Your task to perform on an android device: add a contact in the contacts app Image 0: 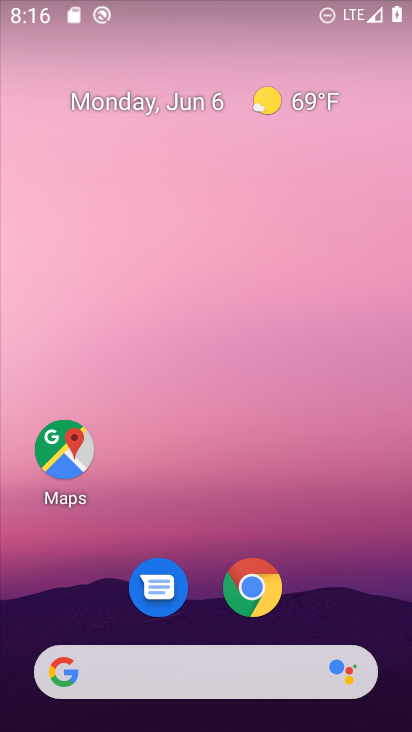
Step 0: drag from (310, 506) to (301, 141)
Your task to perform on an android device: add a contact in the contacts app Image 1: 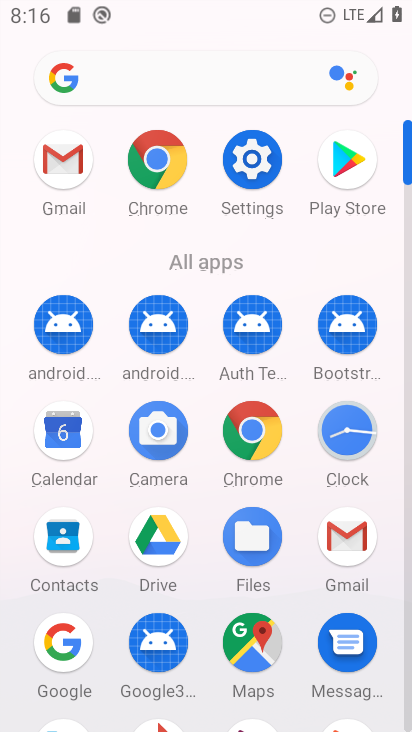
Step 1: drag from (297, 590) to (321, 405)
Your task to perform on an android device: add a contact in the contacts app Image 2: 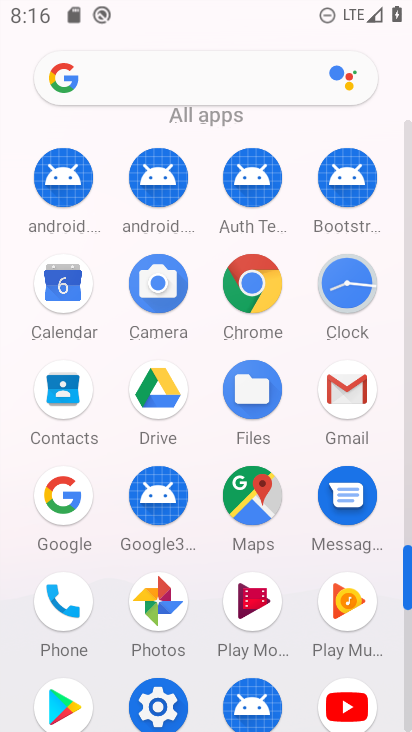
Step 2: click (59, 401)
Your task to perform on an android device: add a contact in the contacts app Image 3: 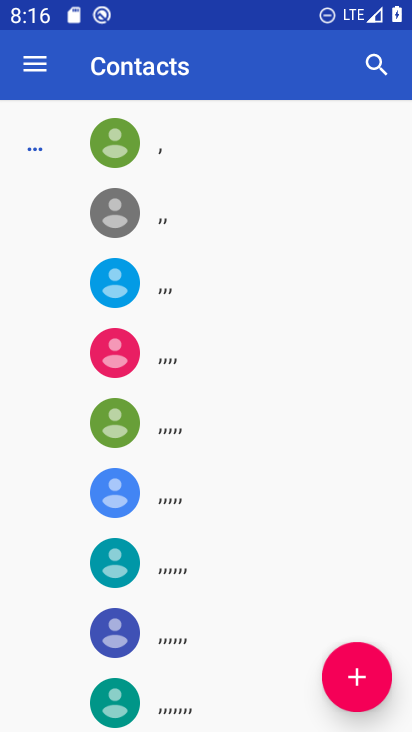
Step 3: click (345, 675)
Your task to perform on an android device: add a contact in the contacts app Image 4: 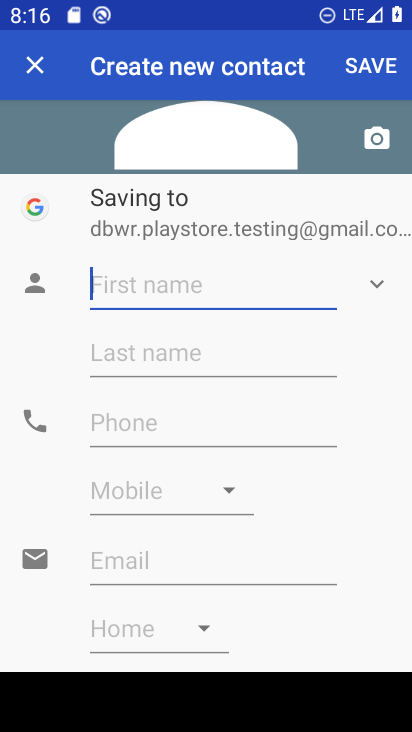
Step 4: click (281, 303)
Your task to perform on an android device: add a contact in the contacts app Image 5: 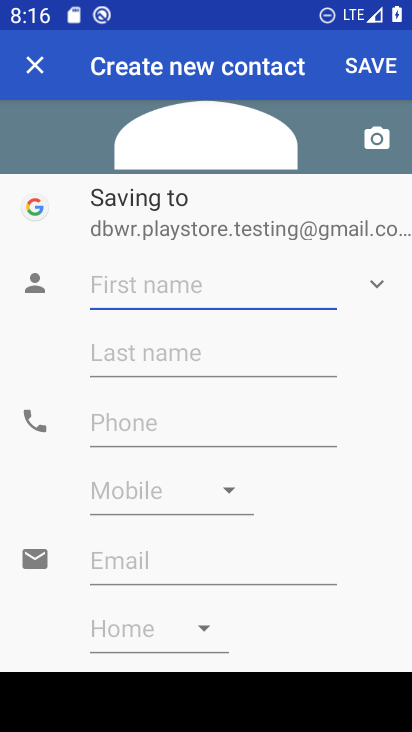
Step 5: type "ravan"
Your task to perform on an android device: add a contact in the contacts app Image 6: 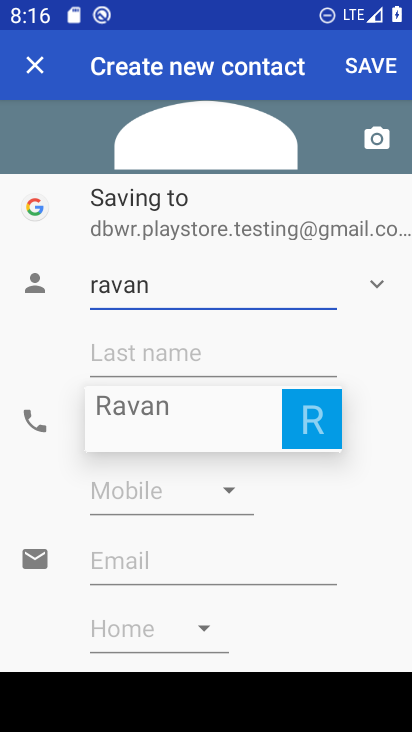
Step 6: type "raj"
Your task to perform on an android device: add a contact in the contacts app Image 7: 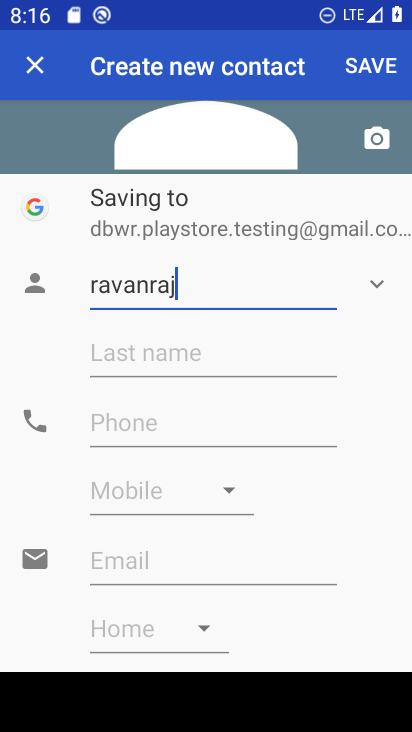
Step 7: click (391, 69)
Your task to perform on an android device: add a contact in the contacts app Image 8: 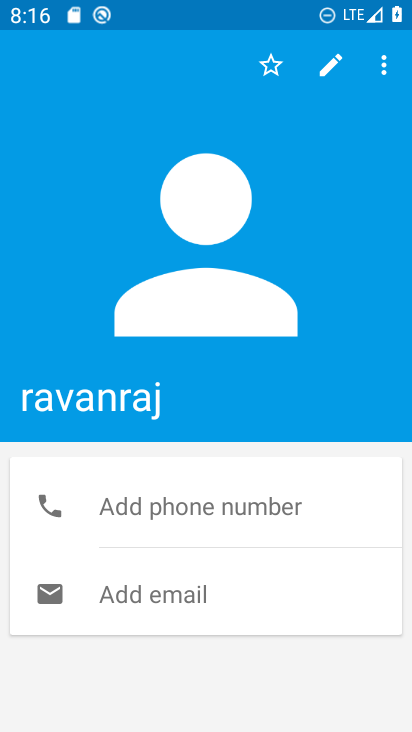
Step 8: task complete